Your task to perform on an android device: Show me recent news Image 0: 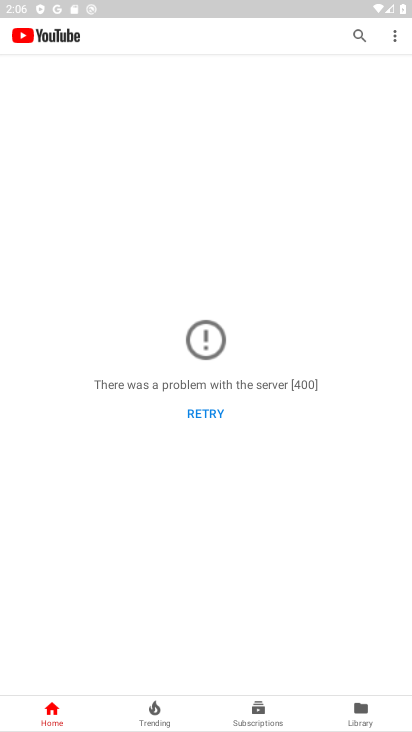
Step 0: press home button
Your task to perform on an android device: Show me recent news Image 1: 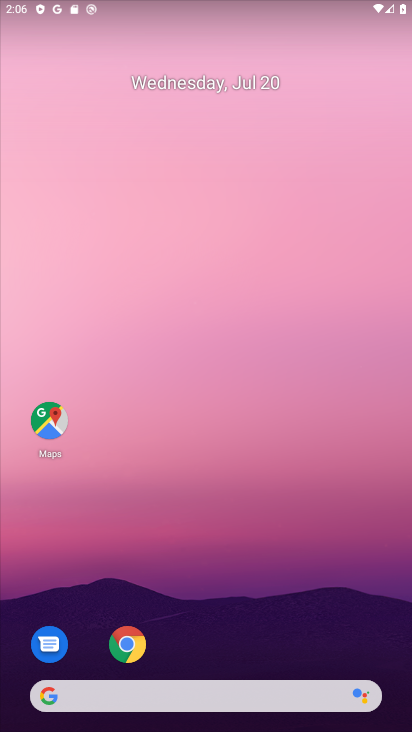
Step 1: drag from (200, 691) to (134, 87)
Your task to perform on an android device: Show me recent news Image 2: 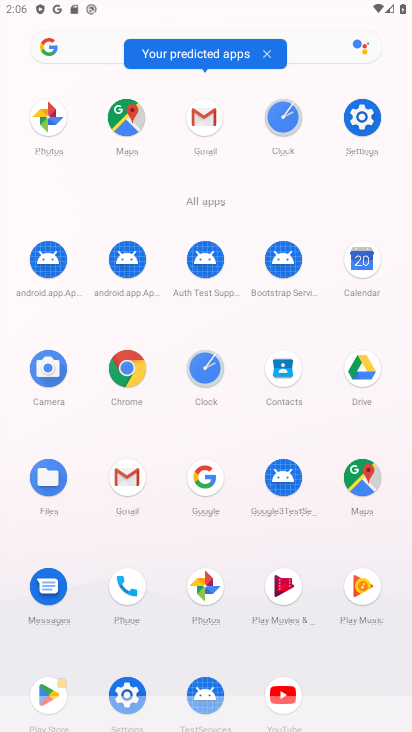
Step 2: click (201, 474)
Your task to perform on an android device: Show me recent news Image 3: 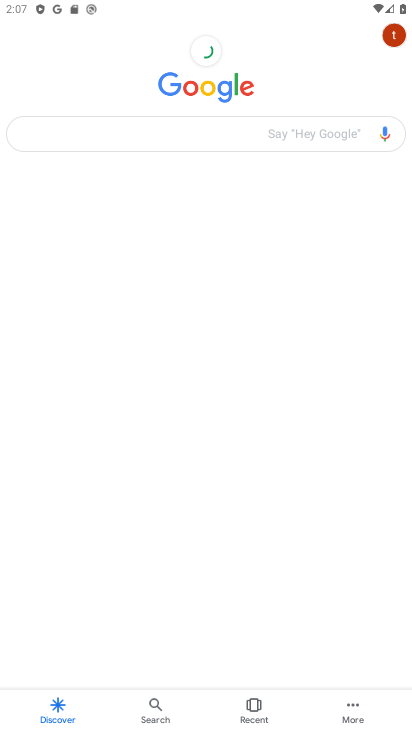
Step 3: click (272, 132)
Your task to perform on an android device: Show me recent news Image 4: 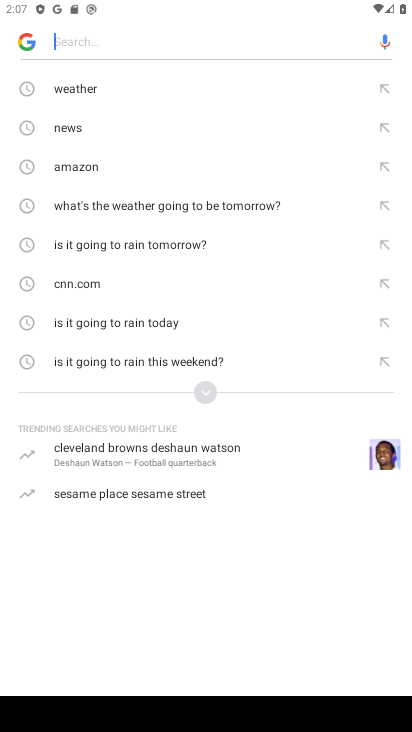
Step 4: type "recent news"
Your task to perform on an android device: Show me recent news Image 5: 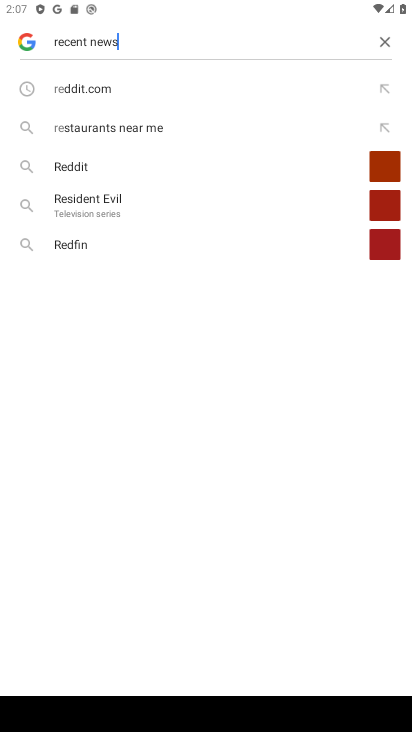
Step 5: type ""
Your task to perform on an android device: Show me recent news Image 6: 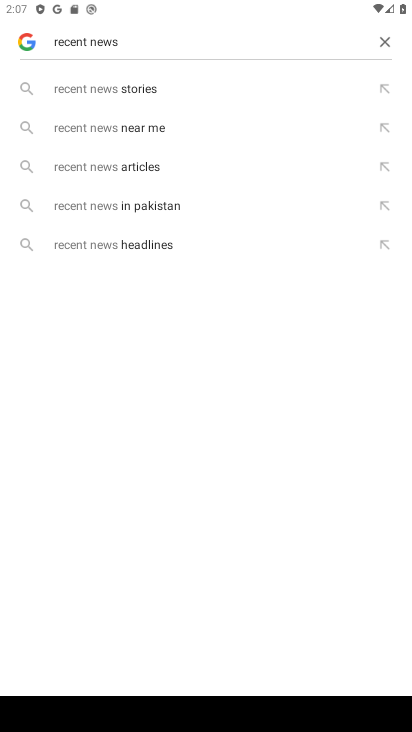
Step 6: click (98, 174)
Your task to perform on an android device: Show me recent news Image 7: 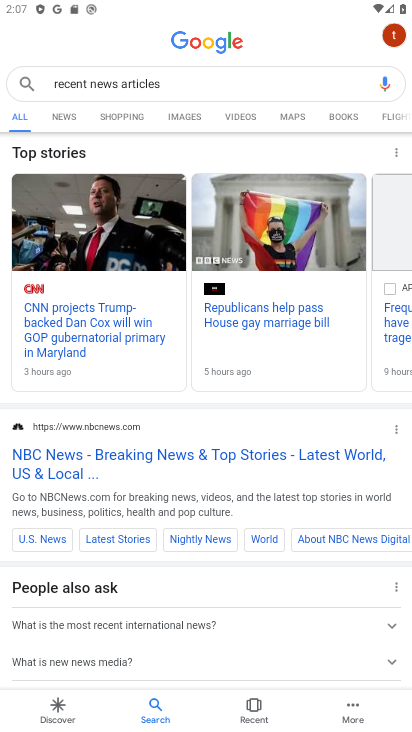
Step 7: click (77, 346)
Your task to perform on an android device: Show me recent news Image 8: 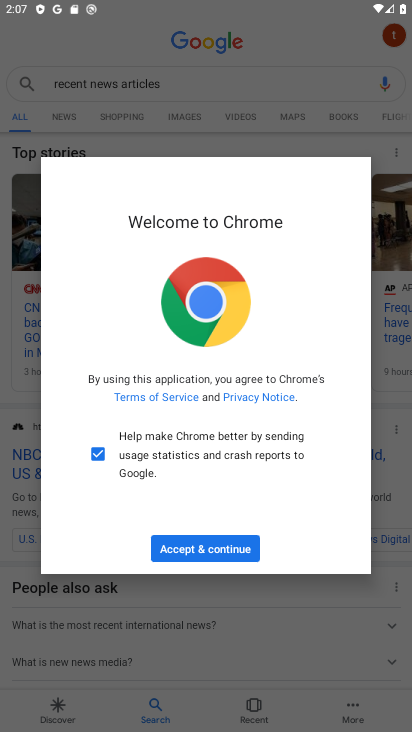
Step 8: click (229, 546)
Your task to perform on an android device: Show me recent news Image 9: 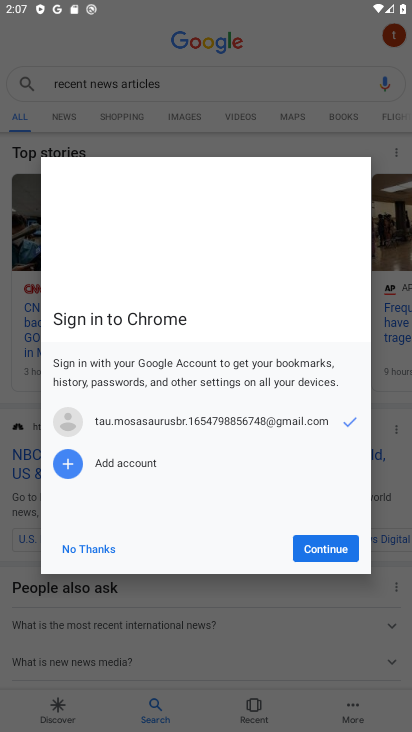
Step 9: click (329, 554)
Your task to perform on an android device: Show me recent news Image 10: 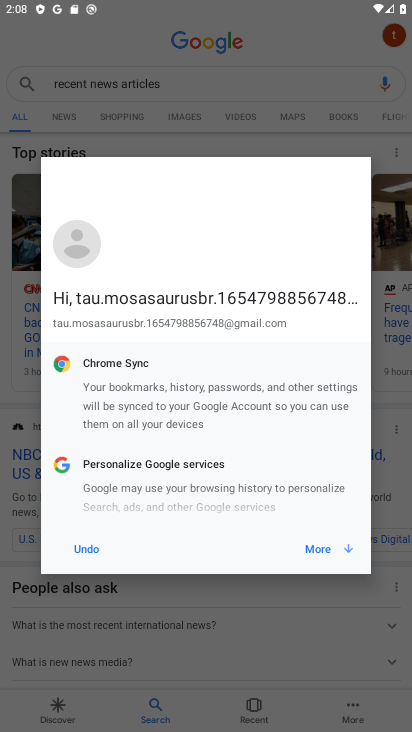
Step 10: click (320, 545)
Your task to perform on an android device: Show me recent news Image 11: 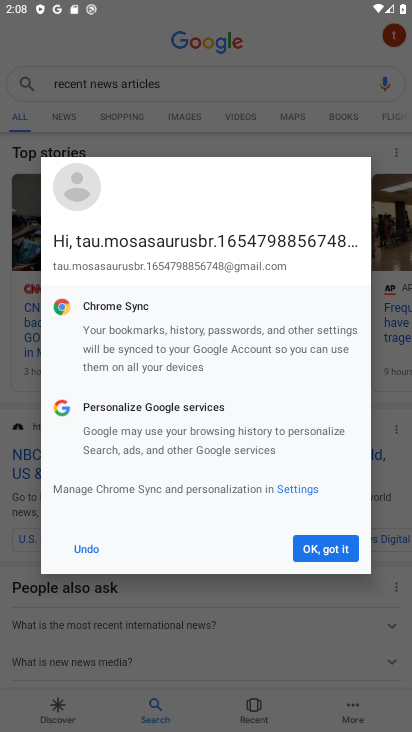
Step 11: click (327, 549)
Your task to perform on an android device: Show me recent news Image 12: 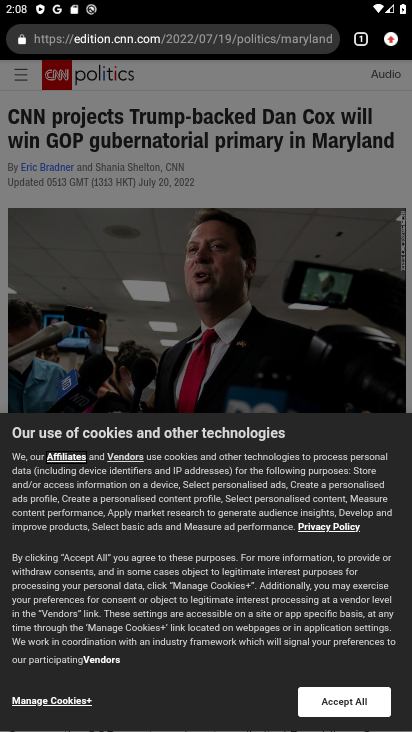
Step 12: click (343, 700)
Your task to perform on an android device: Show me recent news Image 13: 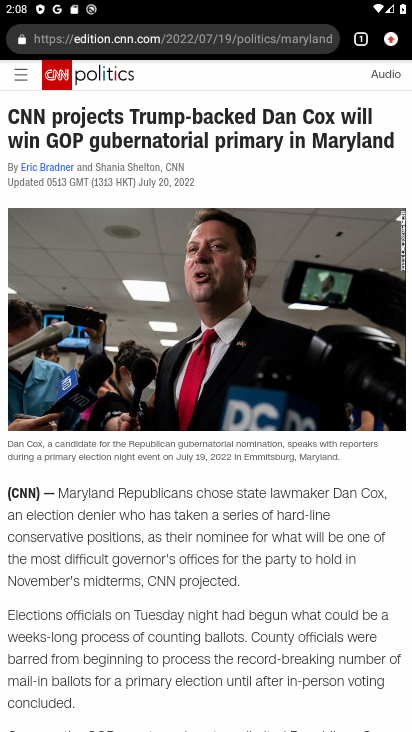
Step 13: task complete